Your task to perform on an android device: Turn off the flashlight Image 0: 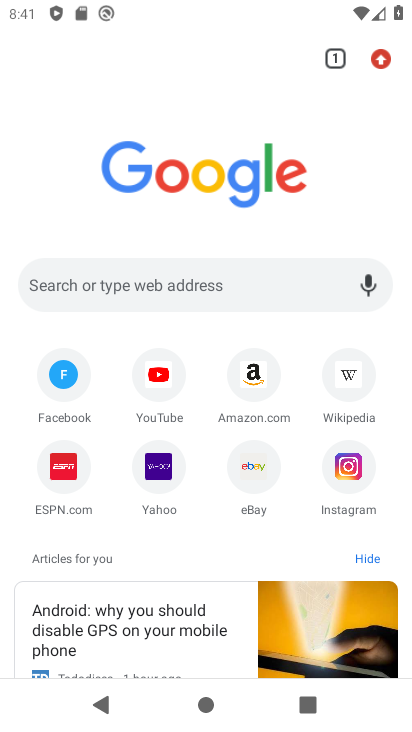
Step 0: drag from (264, 20) to (215, 506)
Your task to perform on an android device: Turn off the flashlight Image 1: 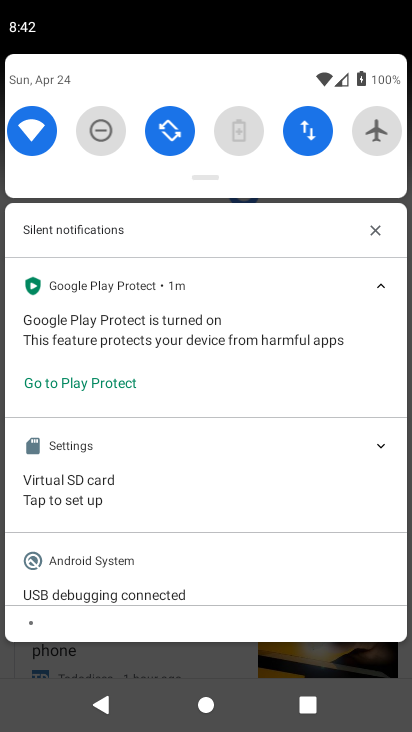
Step 1: task complete